Your task to perform on an android device: Open ESPN.com Image 0: 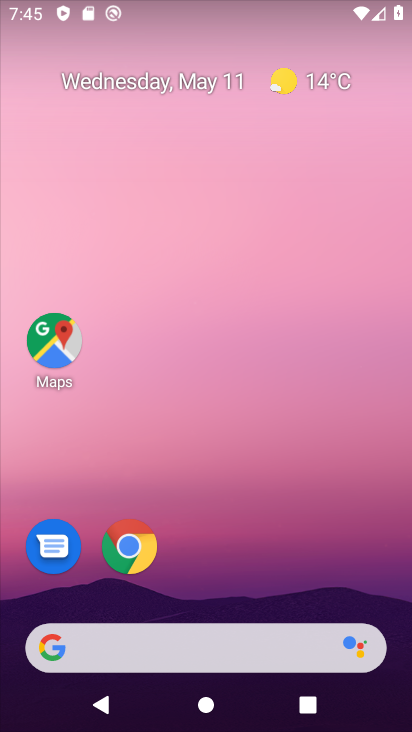
Step 0: click (125, 568)
Your task to perform on an android device: Open ESPN.com Image 1: 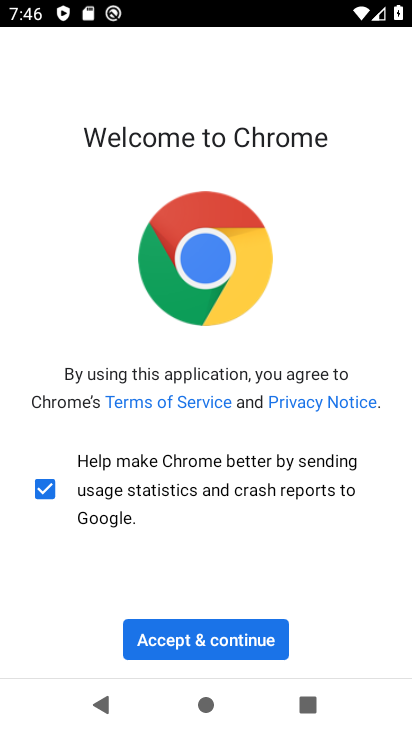
Step 1: click (213, 640)
Your task to perform on an android device: Open ESPN.com Image 2: 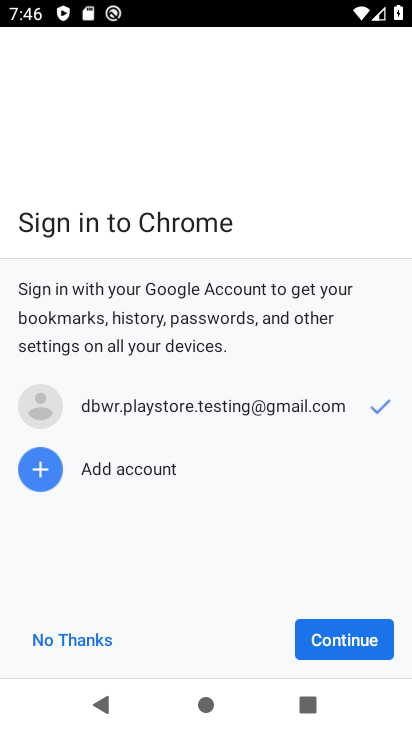
Step 2: click (333, 651)
Your task to perform on an android device: Open ESPN.com Image 3: 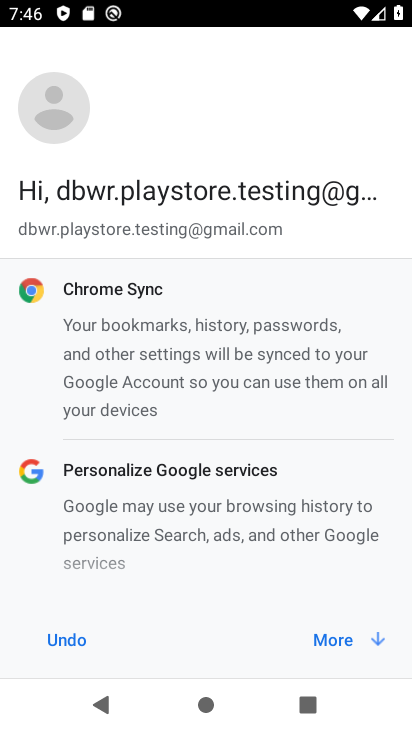
Step 3: click (333, 651)
Your task to perform on an android device: Open ESPN.com Image 4: 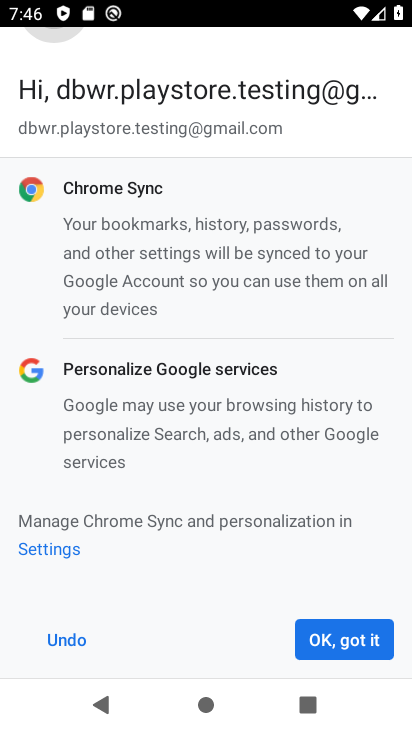
Step 4: click (357, 642)
Your task to perform on an android device: Open ESPN.com Image 5: 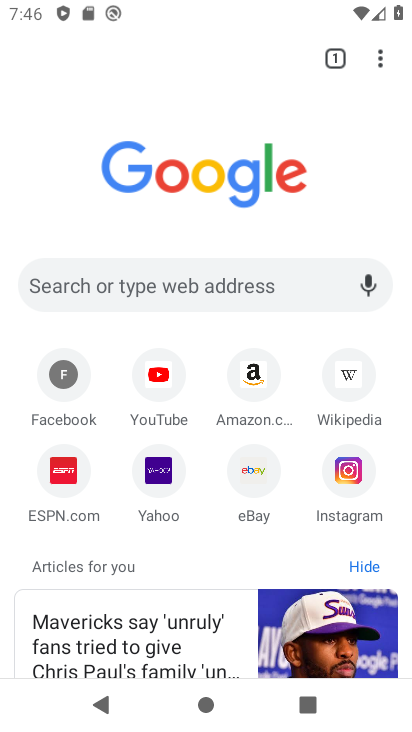
Step 5: click (70, 490)
Your task to perform on an android device: Open ESPN.com Image 6: 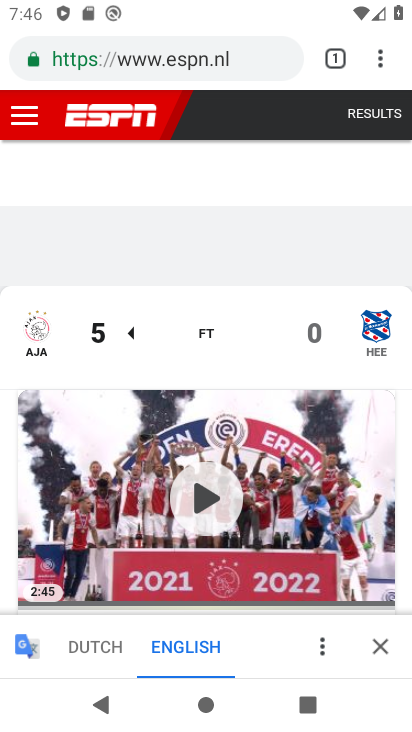
Step 6: task complete